Your task to perform on an android device: Open my contact list Image 0: 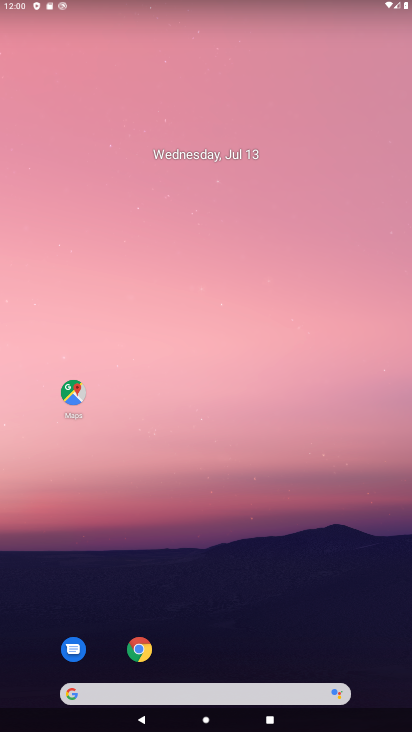
Step 0: drag from (288, 663) to (273, 69)
Your task to perform on an android device: Open my contact list Image 1: 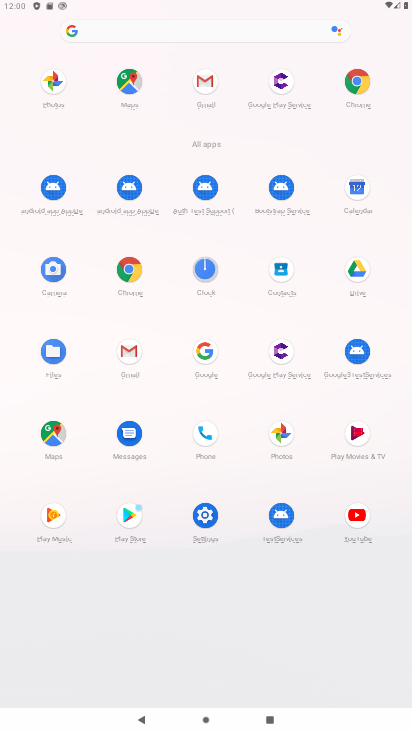
Step 1: click (278, 276)
Your task to perform on an android device: Open my contact list Image 2: 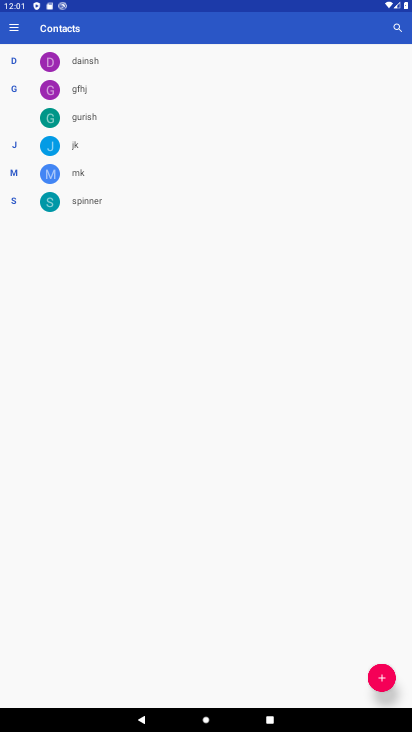
Step 2: click (394, 677)
Your task to perform on an android device: Open my contact list Image 3: 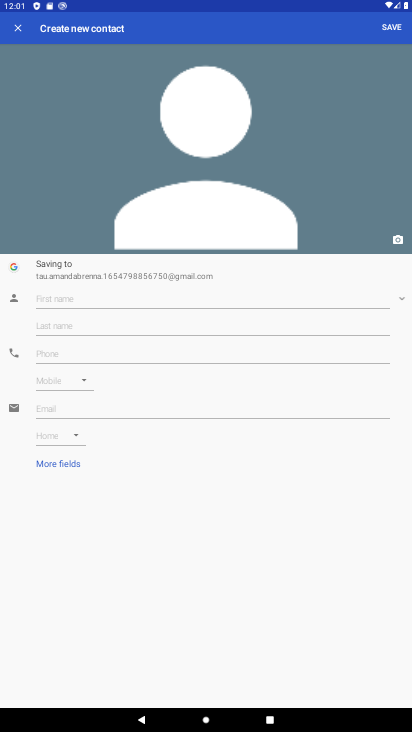
Step 3: click (63, 298)
Your task to perform on an android device: Open my contact list Image 4: 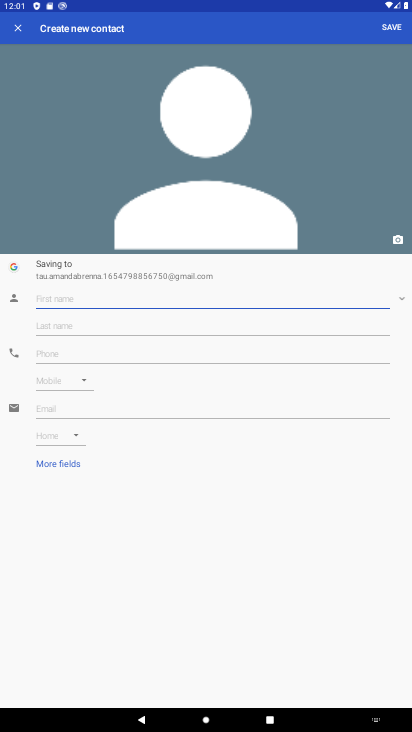
Step 4: type "poi"
Your task to perform on an android device: Open my contact list Image 5: 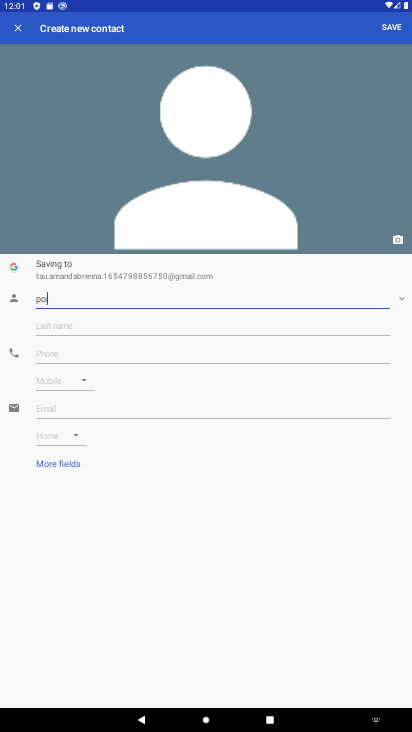
Step 5: type ""
Your task to perform on an android device: Open my contact list Image 6: 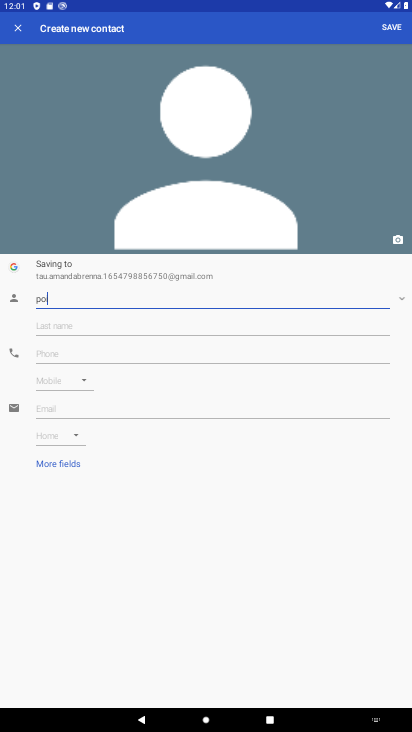
Step 6: click (69, 350)
Your task to perform on an android device: Open my contact list Image 7: 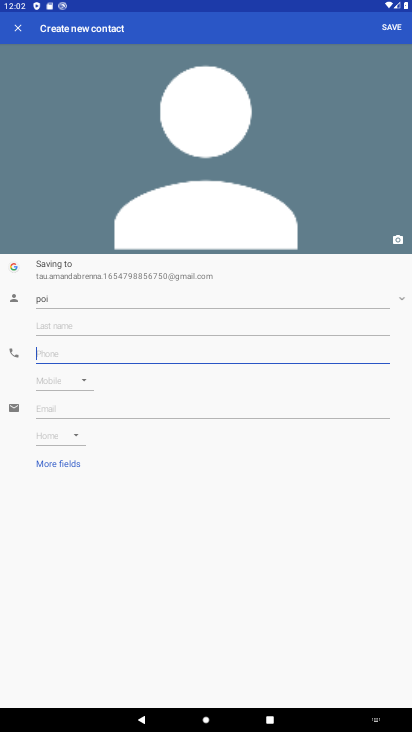
Step 7: type "9876987644"
Your task to perform on an android device: Open my contact list Image 8: 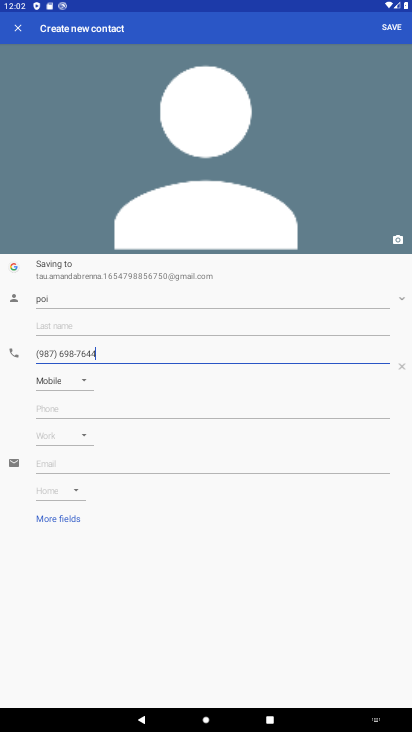
Step 8: type ""
Your task to perform on an android device: Open my contact list Image 9: 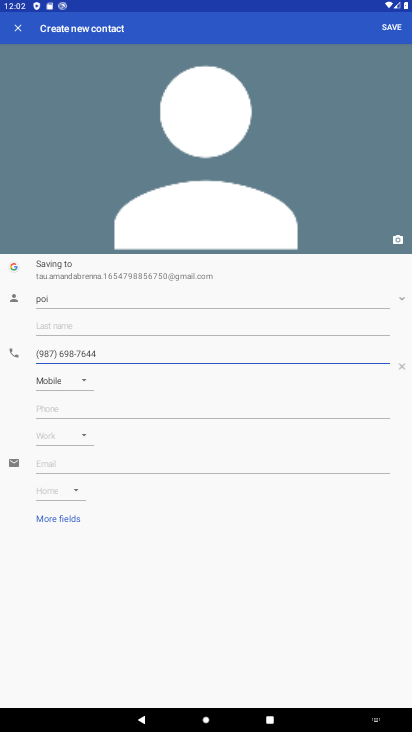
Step 9: click (401, 33)
Your task to perform on an android device: Open my contact list Image 10: 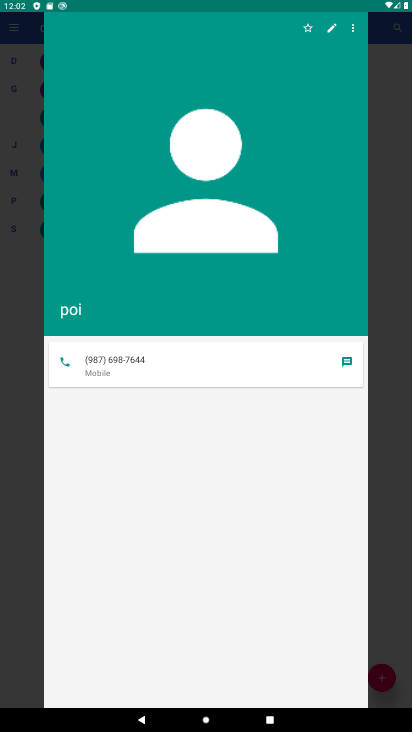
Step 10: task complete